Your task to perform on an android device: Search for "macbook pro" on amazon.com, select the first entry, add it to the cart, then select checkout. Image 0: 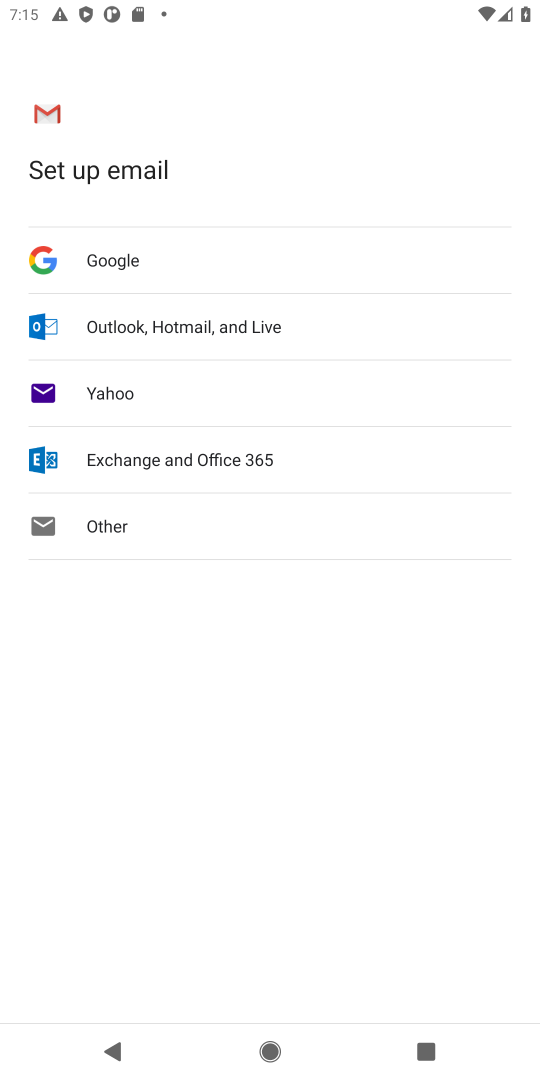
Step 0: press home button
Your task to perform on an android device: Search for "macbook pro" on amazon.com, select the first entry, add it to the cart, then select checkout. Image 1: 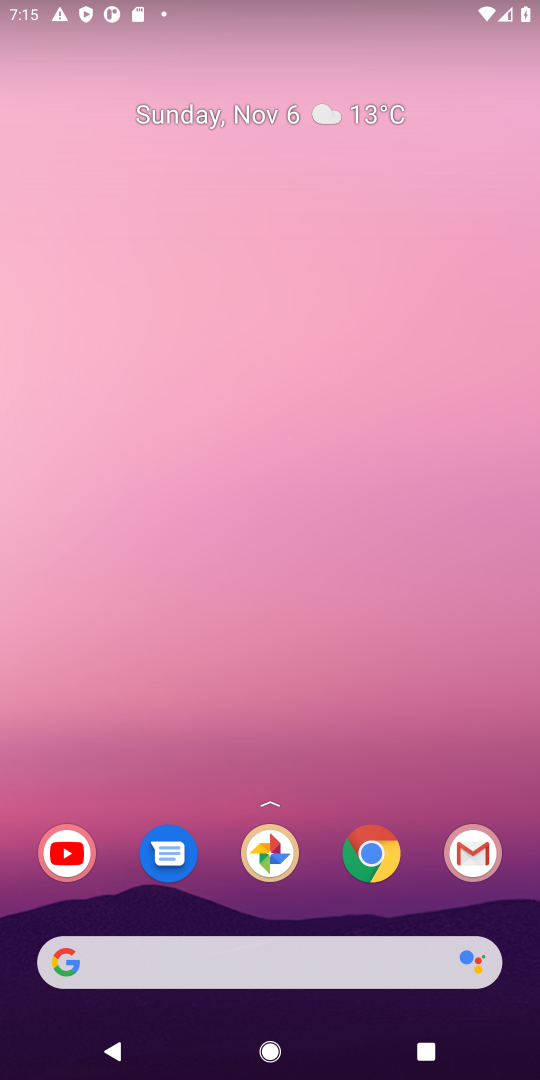
Step 1: click (521, 909)
Your task to perform on an android device: Search for "macbook pro" on amazon.com, select the first entry, add it to the cart, then select checkout. Image 2: 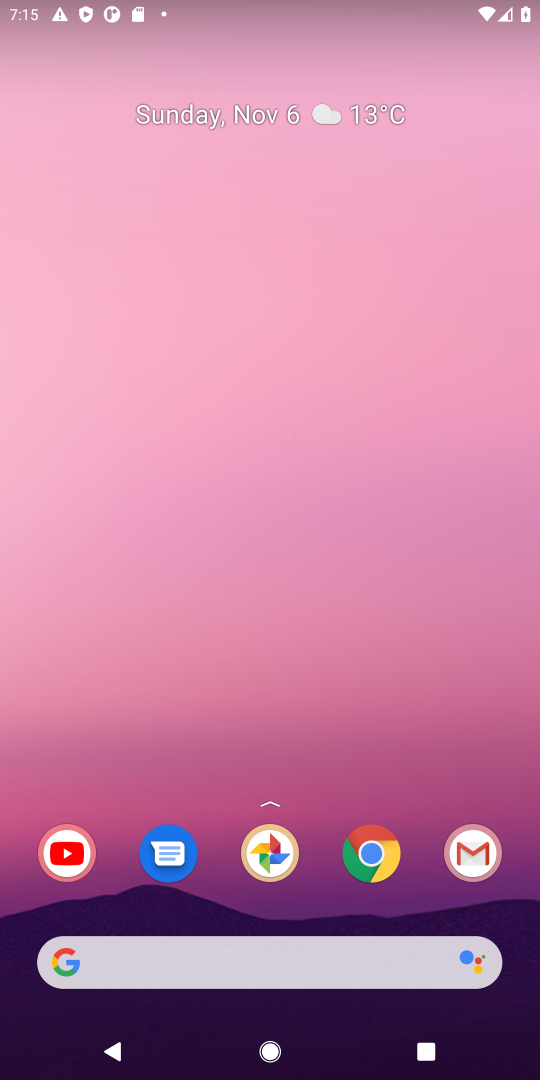
Step 2: click (374, 855)
Your task to perform on an android device: Search for "macbook pro" on amazon.com, select the first entry, add it to the cart, then select checkout. Image 3: 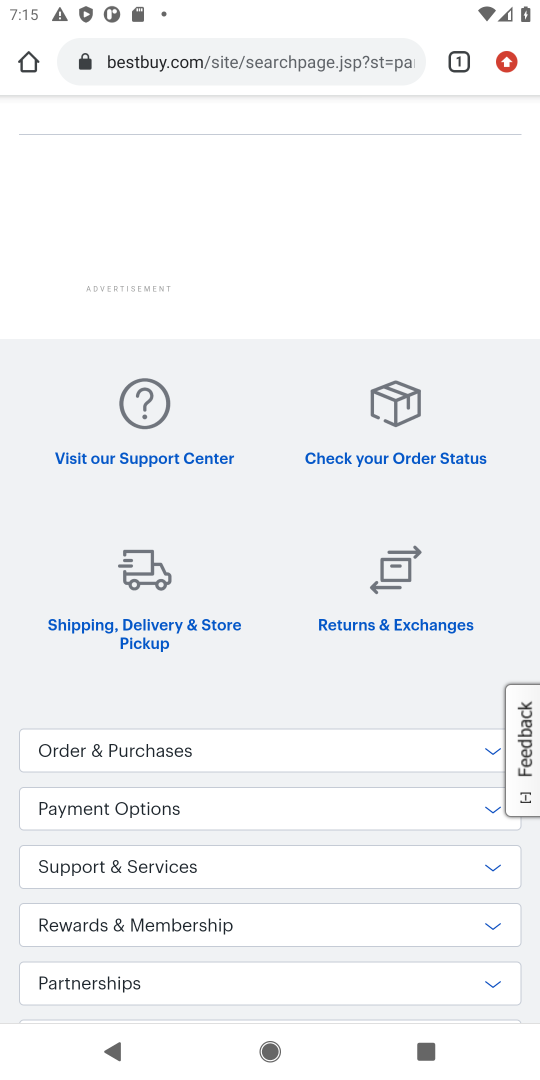
Step 3: click (277, 40)
Your task to perform on an android device: Search for "macbook pro" on amazon.com, select the first entry, add it to the cart, then select checkout. Image 4: 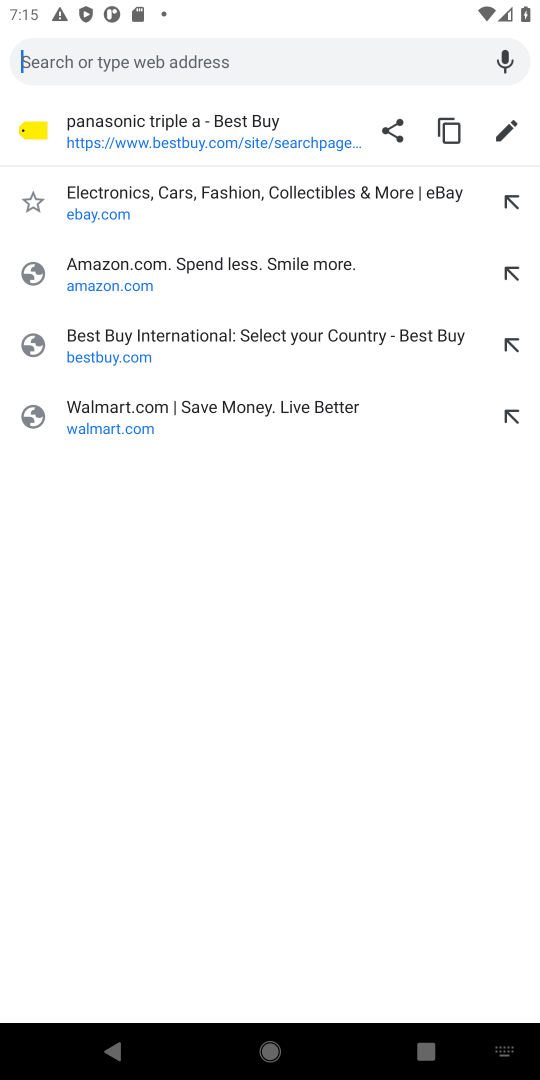
Step 4: type "amazon.com"
Your task to perform on an android device: Search for "macbook pro" on amazon.com, select the first entry, add it to the cart, then select checkout. Image 5: 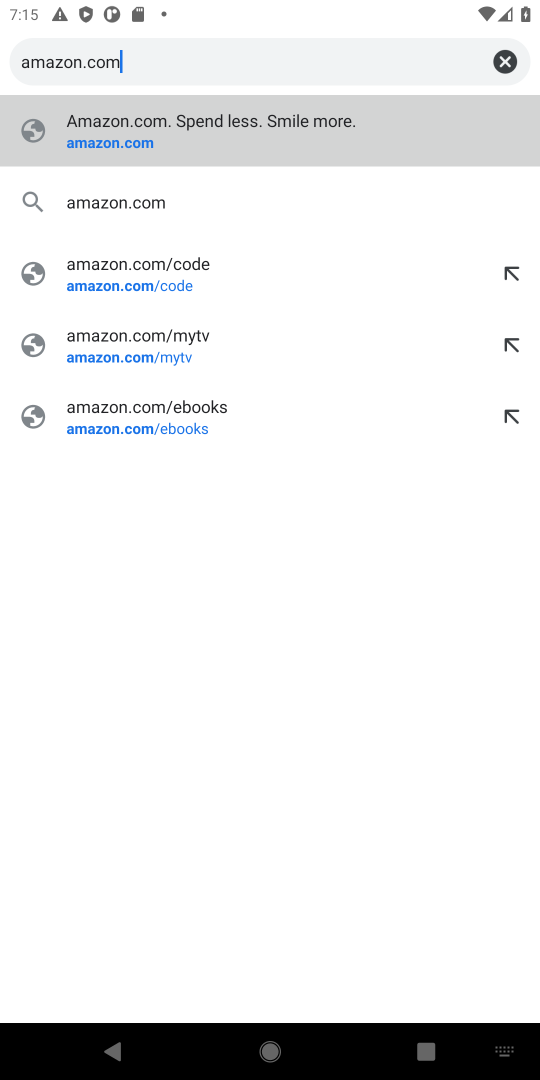
Step 5: click (107, 122)
Your task to perform on an android device: Search for "macbook pro" on amazon.com, select the first entry, add it to the cart, then select checkout. Image 6: 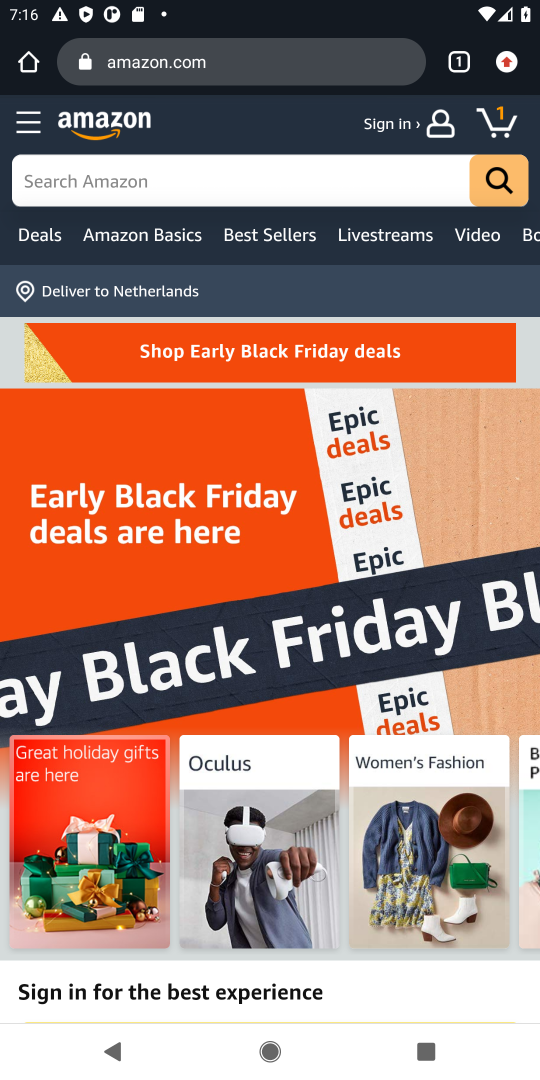
Step 6: click (139, 176)
Your task to perform on an android device: Search for "macbook pro" on amazon.com, select the first entry, add it to the cart, then select checkout. Image 7: 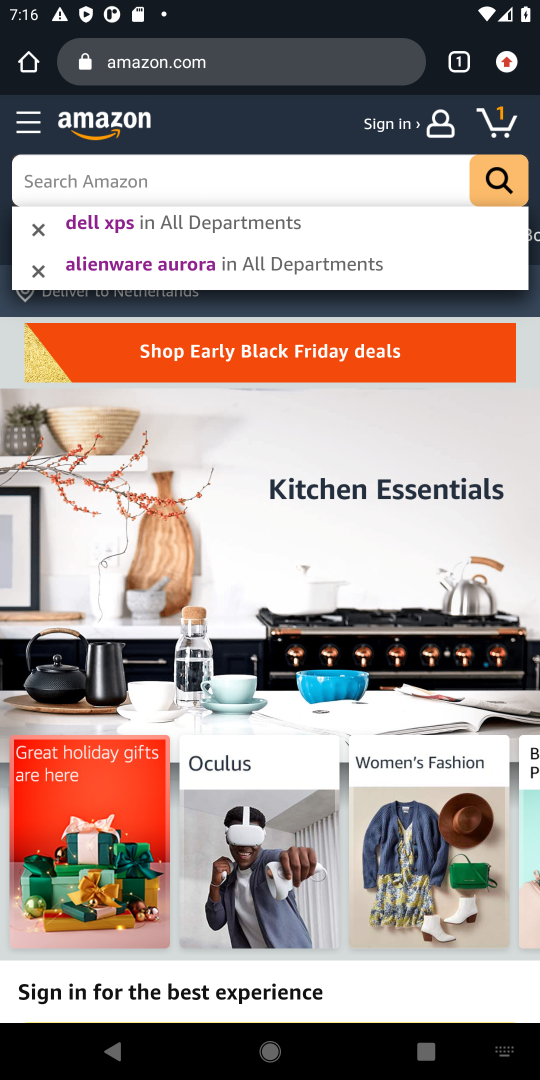
Step 7: type "macbook pro"
Your task to perform on an android device: Search for "macbook pro" on amazon.com, select the first entry, add it to the cart, then select checkout. Image 8: 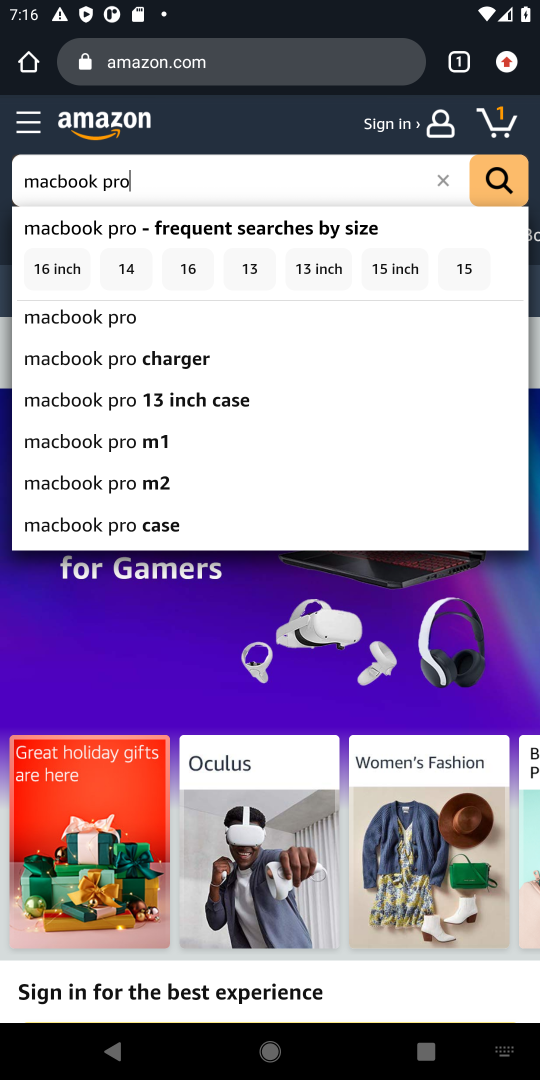
Step 8: click (76, 316)
Your task to perform on an android device: Search for "macbook pro" on amazon.com, select the first entry, add it to the cart, then select checkout. Image 9: 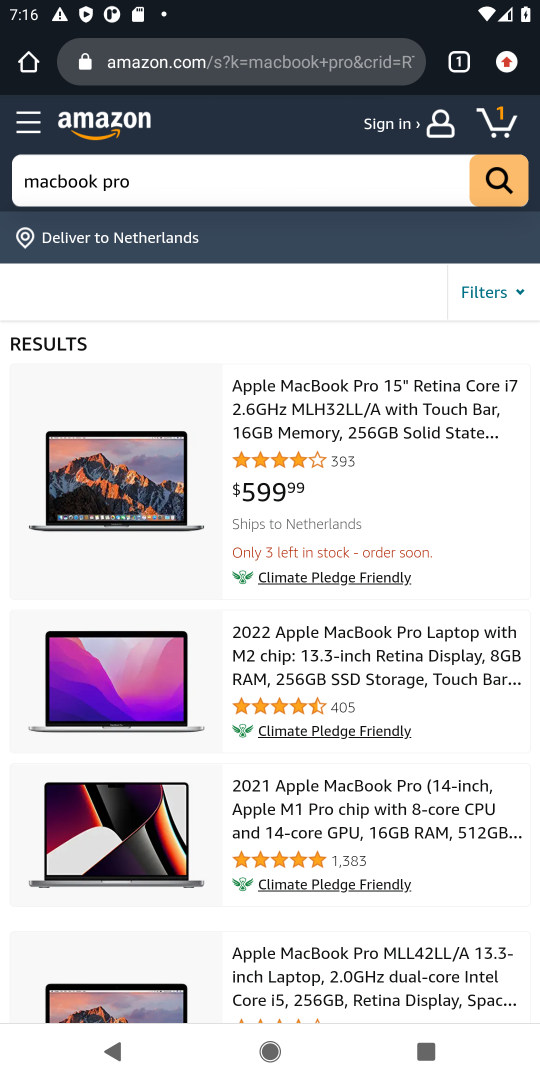
Step 9: click (304, 400)
Your task to perform on an android device: Search for "macbook pro" on amazon.com, select the first entry, add it to the cart, then select checkout. Image 10: 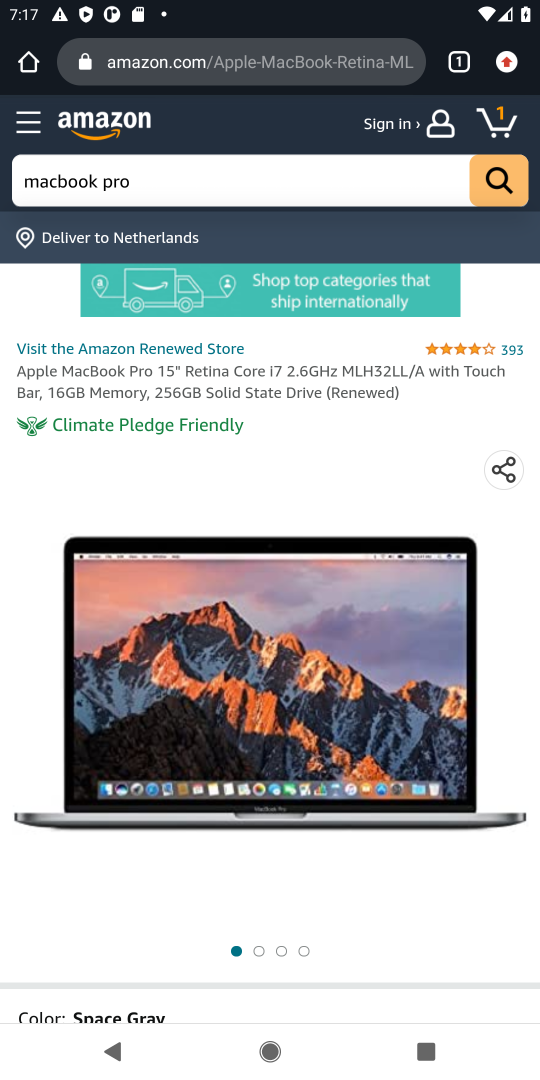
Step 10: drag from (412, 944) to (348, 296)
Your task to perform on an android device: Search for "macbook pro" on amazon.com, select the first entry, add it to the cart, then select checkout. Image 11: 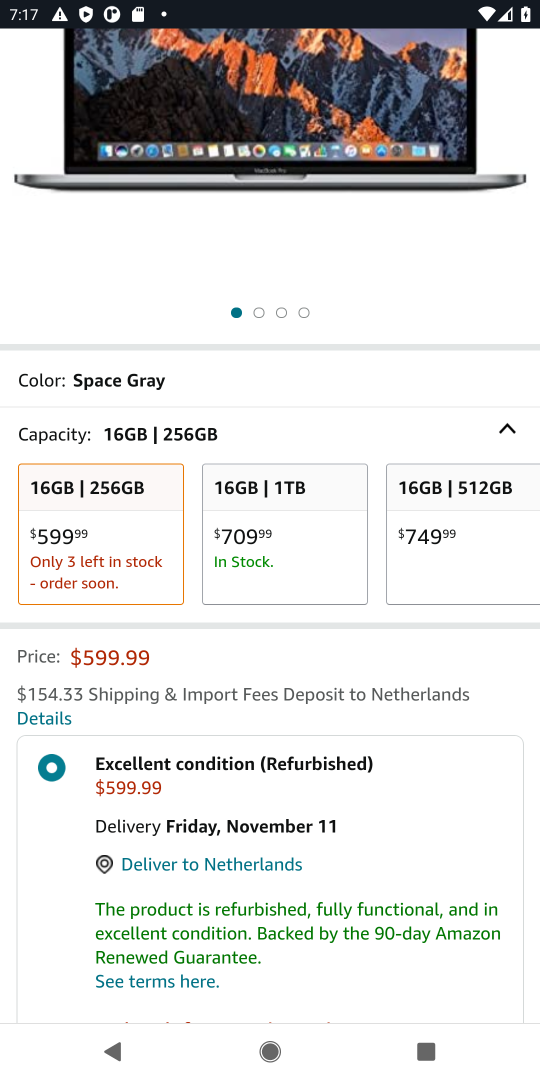
Step 11: drag from (379, 841) to (351, 274)
Your task to perform on an android device: Search for "macbook pro" on amazon.com, select the first entry, add it to the cart, then select checkout. Image 12: 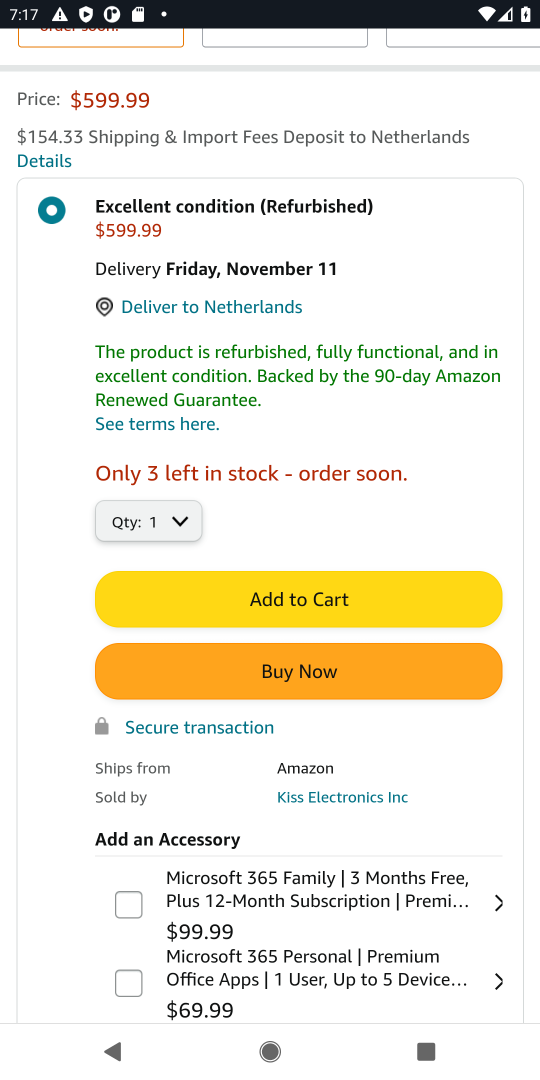
Step 12: click (282, 593)
Your task to perform on an android device: Search for "macbook pro" on amazon.com, select the first entry, add it to the cart, then select checkout. Image 13: 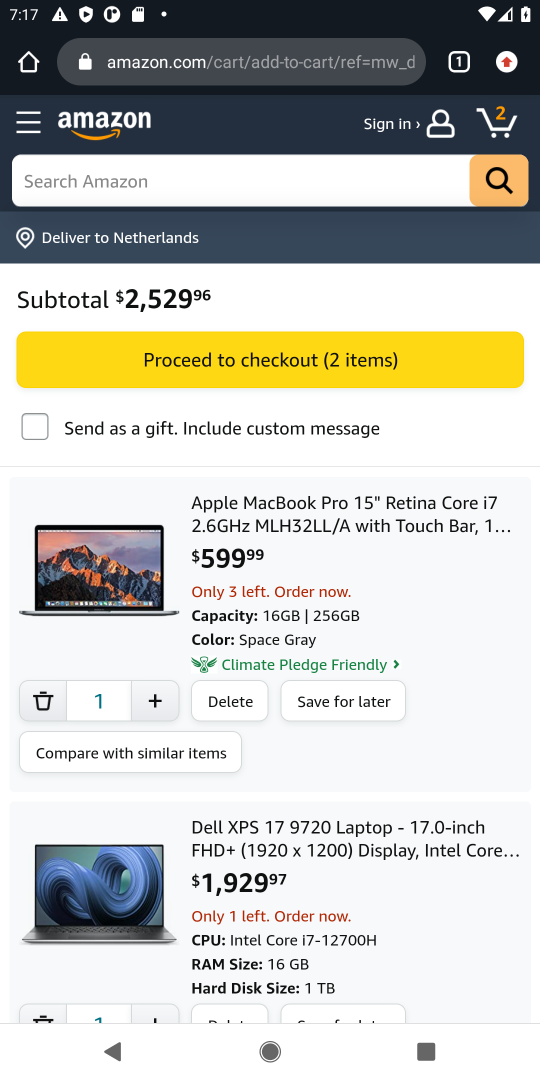
Step 13: click (266, 355)
Your task to perform on an android device: Search for "macbook pro" on amazon.com, select the first entry, add it to the cart, then select checkout. Image 14: 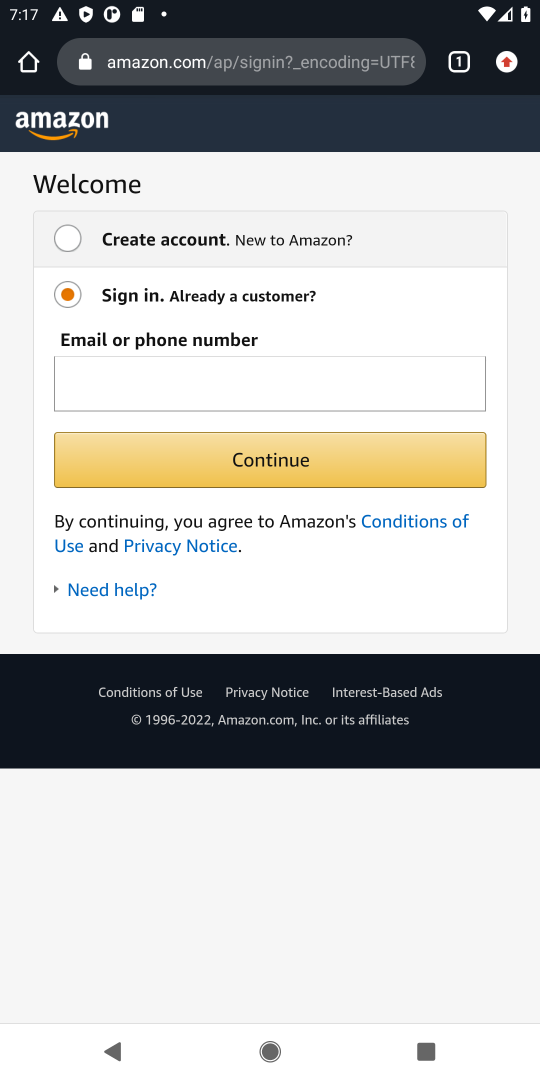
Step 14: task complete